Your task to perform on an android device: add a contact in the contacts app Image 0: 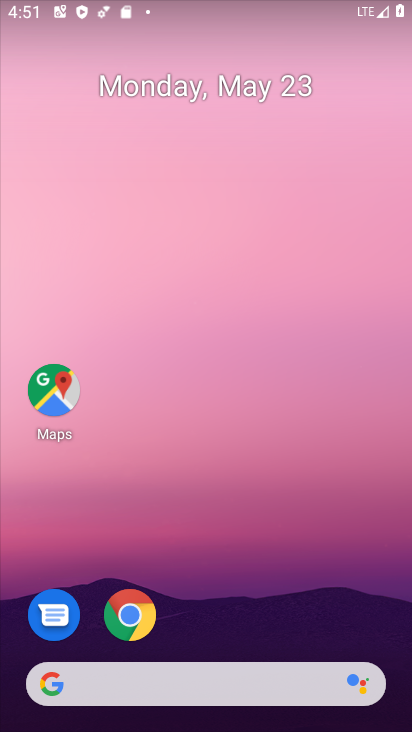
Step 0: drag from (247, 634) to (255, 68)
Your task to perform on an android device: add a contact in the contacts app Image 1: 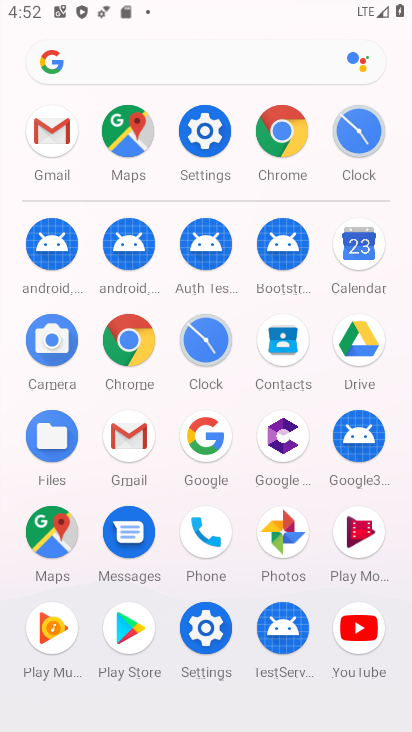
Step 1: click (205, 531)
Your task to perform on an android device: add a contact in the contacts app Image 2: 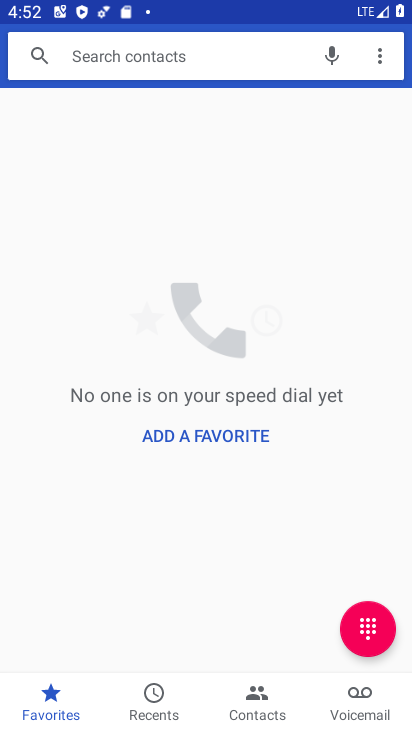
Step 2: press home button
Your task to perform on an android device: add a contact in the contacts app Image 3: 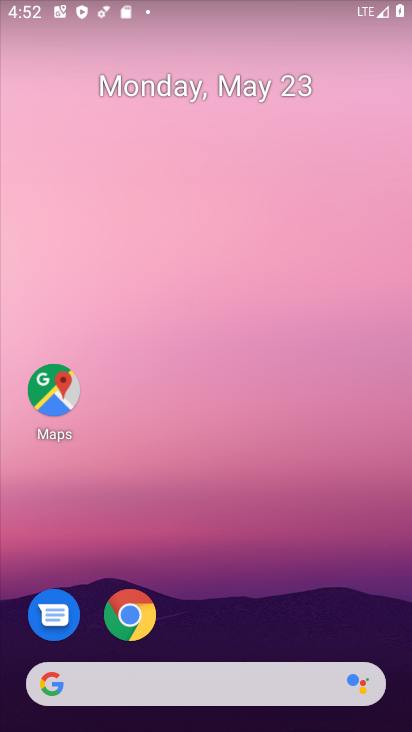
Step 3: drag from (261, 564) to (275, 142)
Your task to perform on an android device: add a contact in the contacts app Image 4: 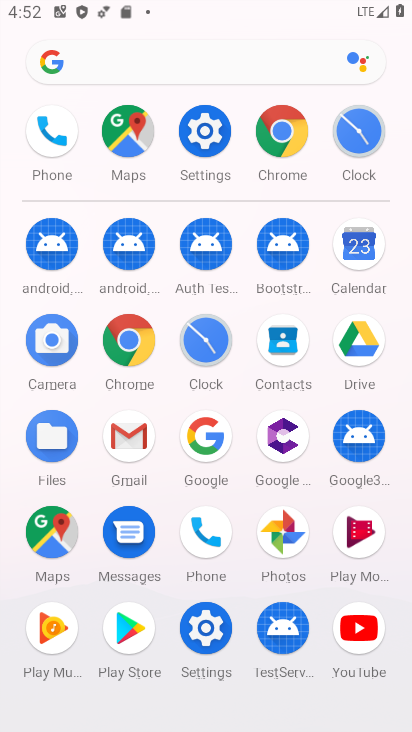
Step 4: click (258, 333)
Your task to perform on an android device: add a contact in the contacts app Image 5: 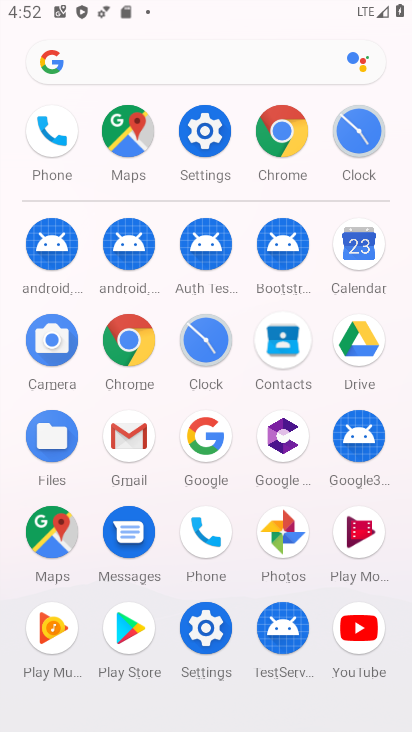
Step 5: click (270, 338)
Your task to perform on an android device: add a contact in the contacts app Image 6: 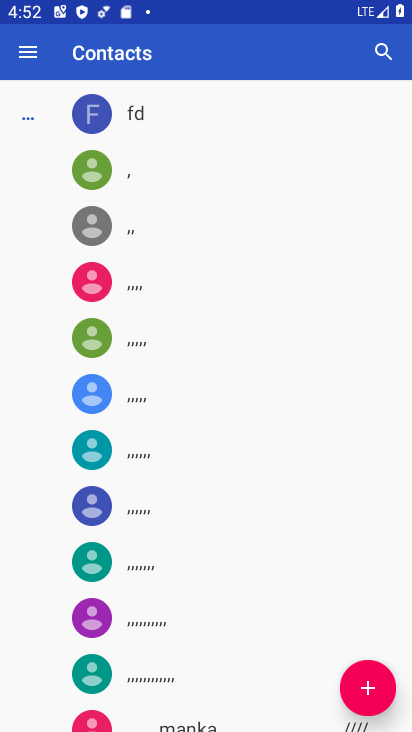
Step 6: click (368, 687)
Your task to perform on an android device: add a contact in the contacts app Image 7: 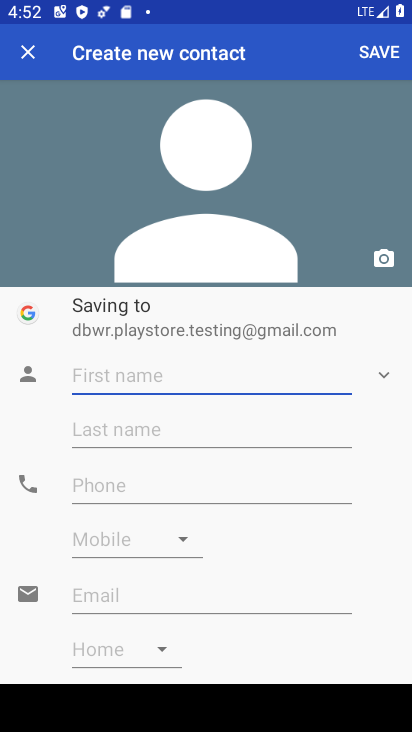
Step 7: type "cnsm"
Your task to perform on an android device: add a contact in the contacts app Image 8: 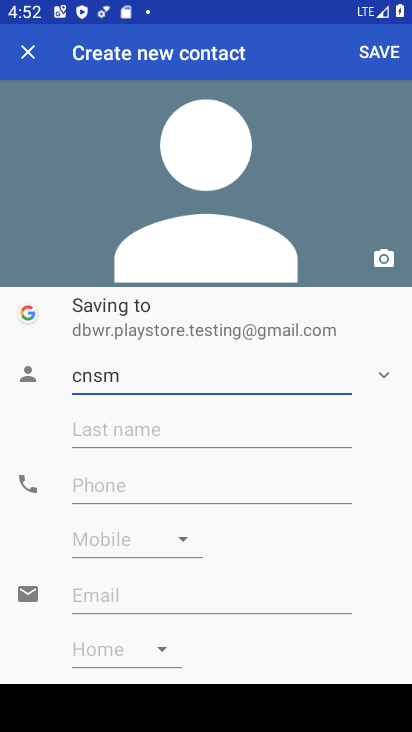
Step 8: click (127, 481)
Your task to perform on an android device: add a contact in the contacts app Image 9: 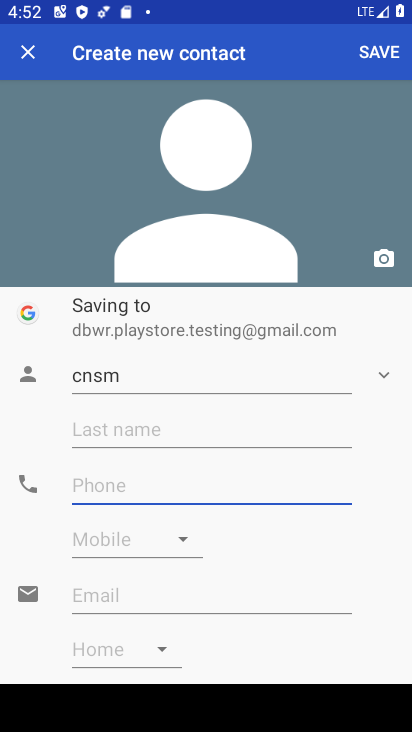
Step 9: type "8734"
Your task to perform on an android device: add a contact in the contacts app Image 10: 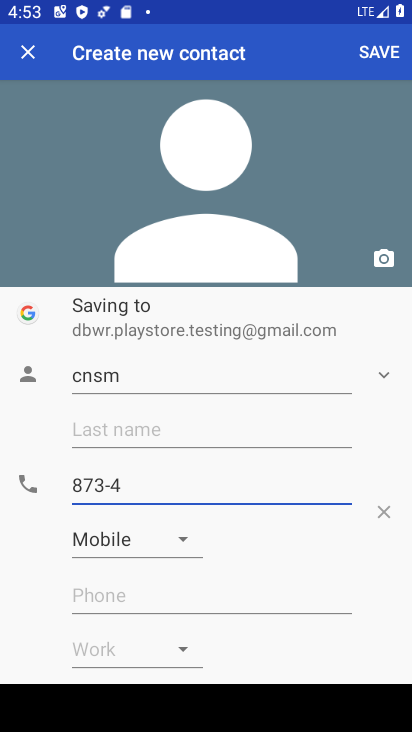
Step 10: click (376, 53)
Your task to perform on an android device: add a contact in the contacts app Image 11: 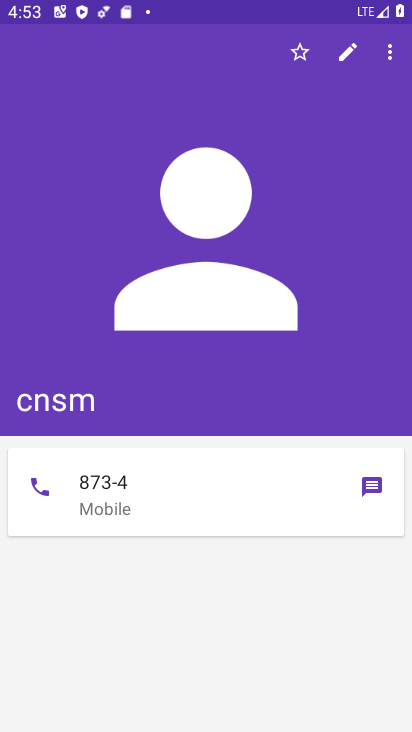
Step 11: task complete